Your task to perform on an android device: turn off improve location accuracy Image 0: 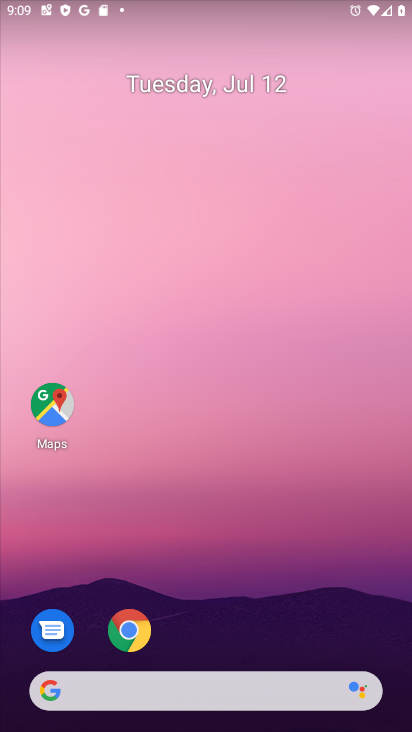
Step 0: drag from (230, 637) to (305, 108)
Your task to perform on an android device: turn off improve location accuracy Image 1: 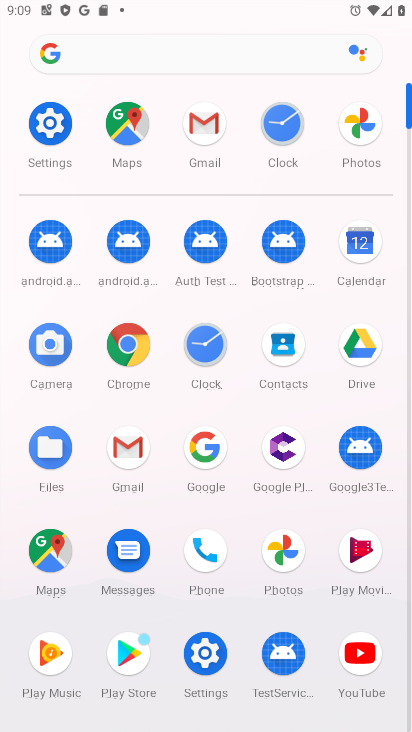
Step 1: click (47, 125)
Your task to perform on an android device: turn off improve location accuracy Image 2: 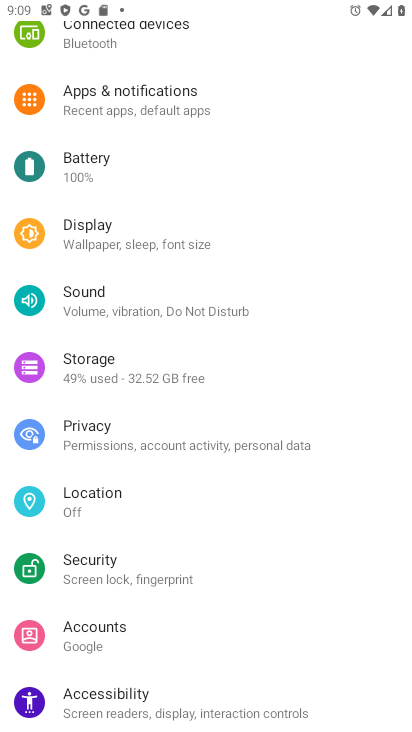
Step 2: click (105, 507)
Your task to perform on an android device: turn off improve location accuracy Image 3: 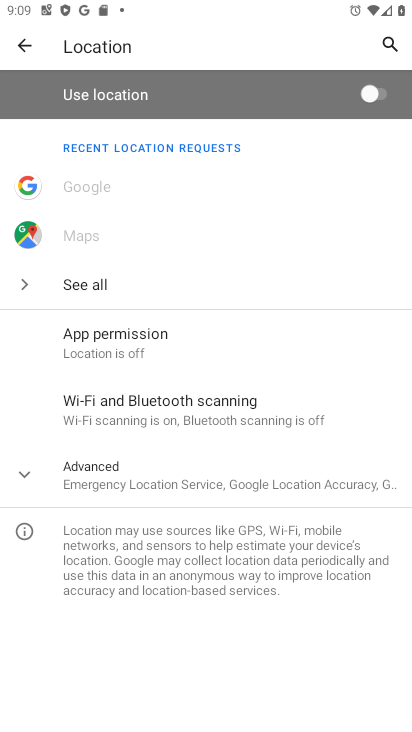
Step 3: click (93, 475)
Your task to perform on an android device: turn off improve location accuracy Image 4: 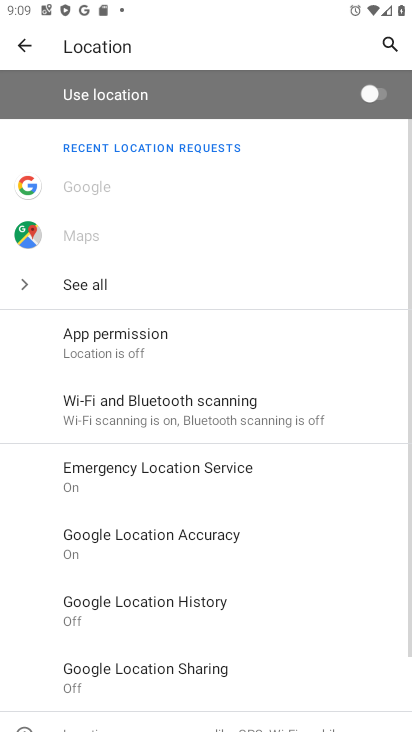
Step 4: click (194, 539)
Your task to perform on an android device: turn off improve location accuracy Image 5: 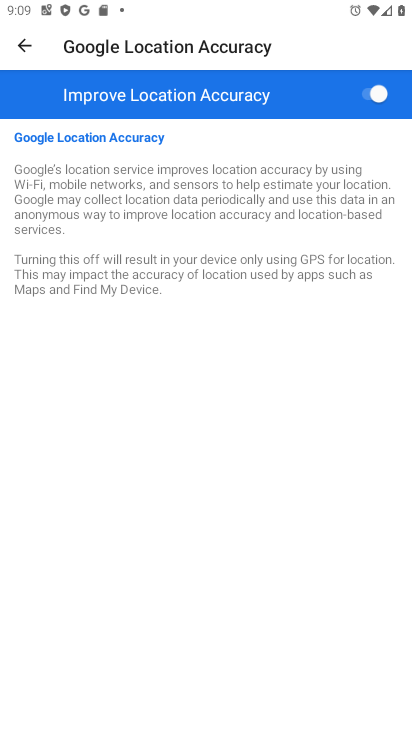
Step 5: click (381, 92)
Your task to perform on an android device: turn off improve location accuracy Image 6: 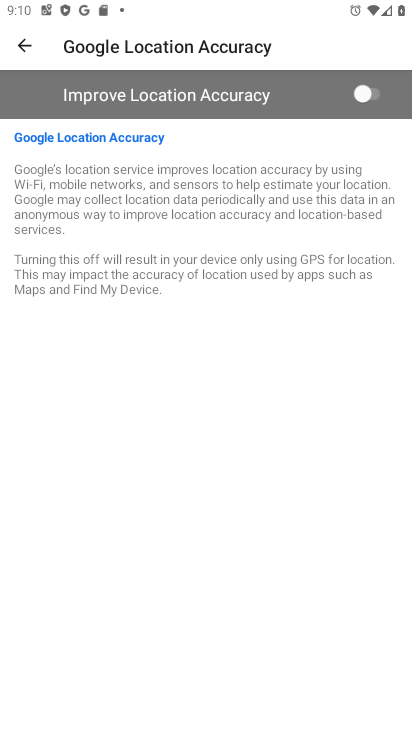
Step 6: task complete